Your task to perform on an android device: Do I have any events this weekend? Image 0: 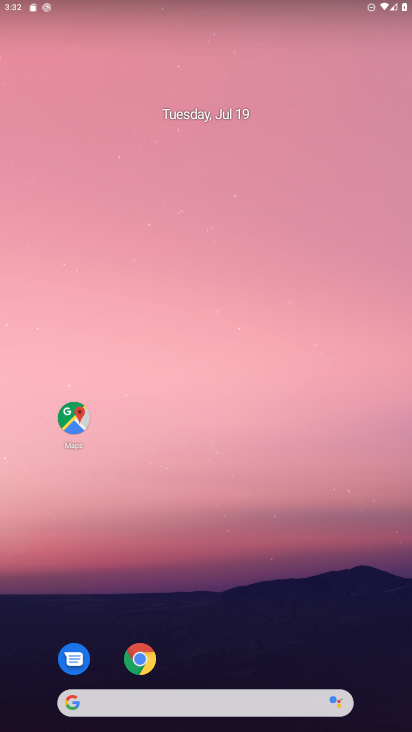
Step 0: drag from (233, 649) to (305, 24)
Your task to perform on an android device: Do I have any events this weekend? Image 1: 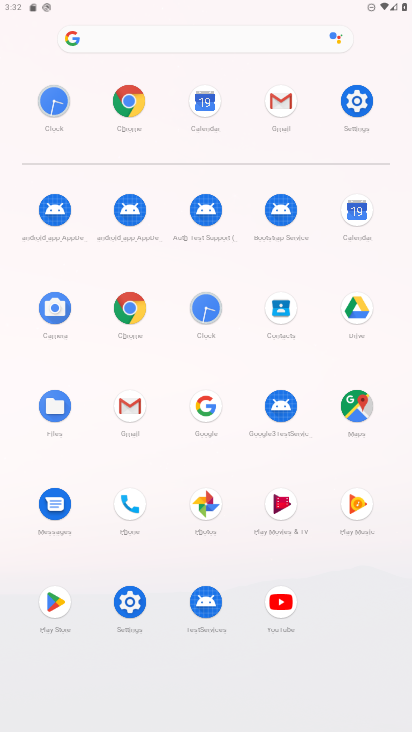
Step 1: click (365, 197)
Your task to perform on an android device: Do I have any events this weekend? Image 2: 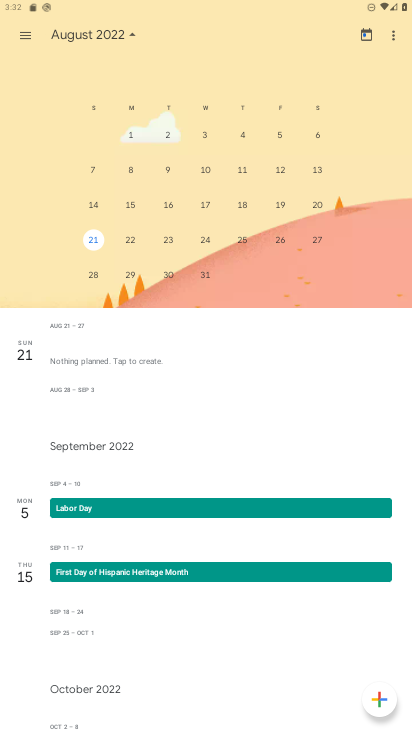
Step 2: drag from (62, 174) to (394, 164)
Your task to perform on an android device: Do I have any events this weekend? Image 3: 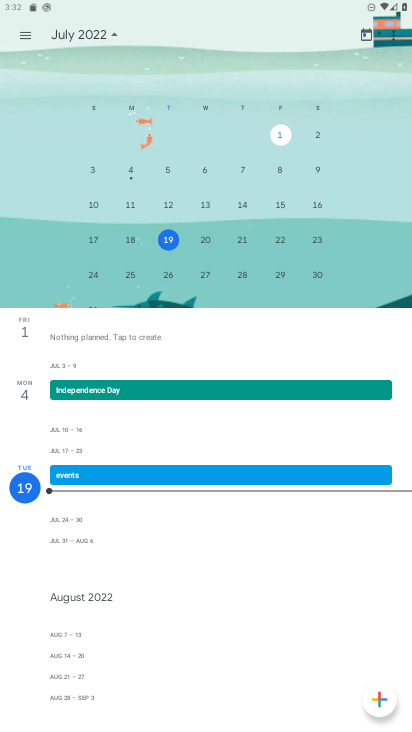
Step 3: click (321, 239)
Your task to perform on an android device: Do I have any events this weekend? Image 4: 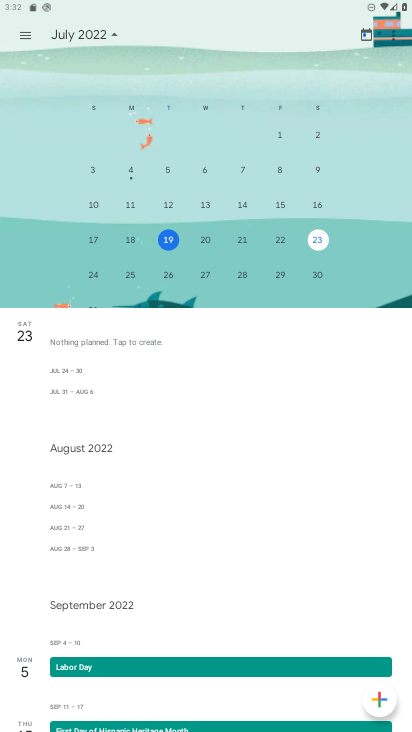
Step 4: click (82, 273)
Your task to perform on an android device: Do I have any events this weekend? Image 5: 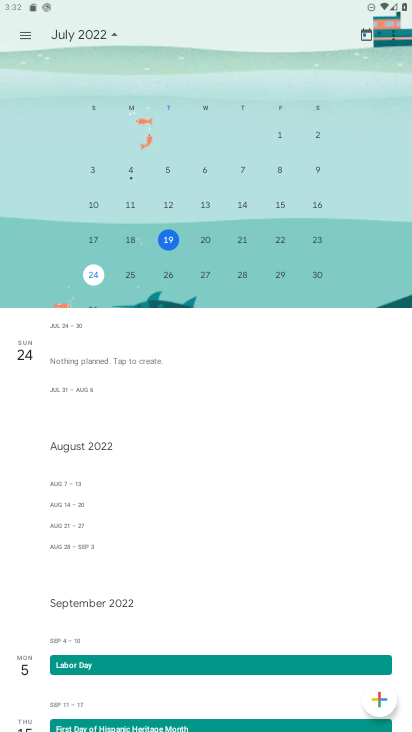
Step 5: task complete